Your task to perform on an android device: see tabs open on other devices in the chrome app Image 0: 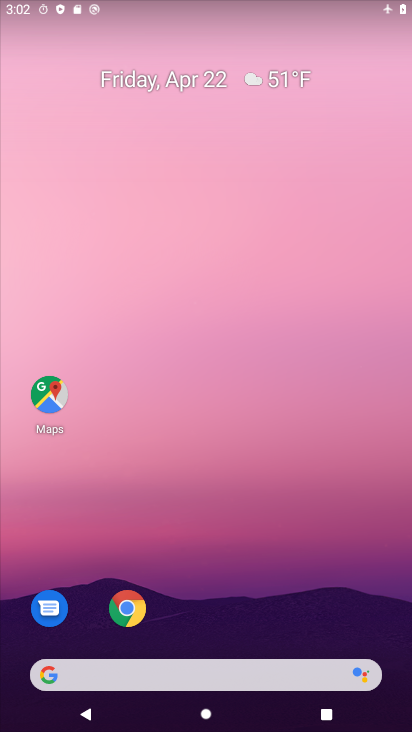
Step 0: drag from (284, 516) to (272, 44)
Your task to perform on an android device: see tabs open on other devices in the chrome app Image 1: 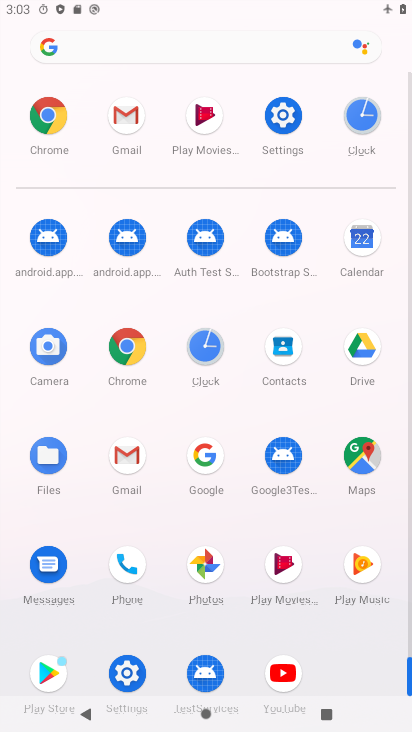
Step 1: click (125, 344)
Your task to perform on an android device: see tabs open on other devices in the chrome app Image 2: 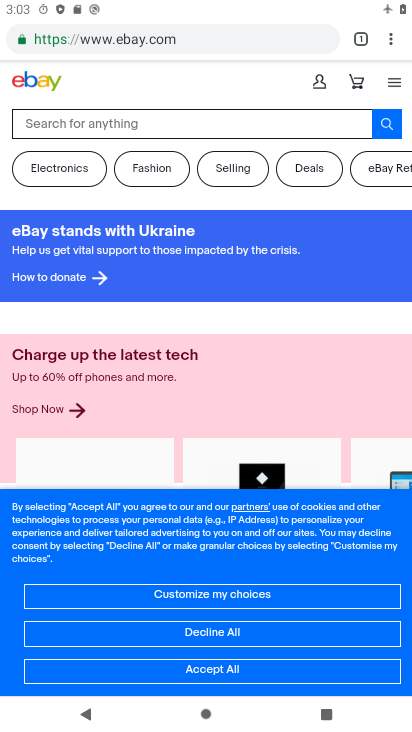
Step 2: click (387, 35)
Your task to perform on an android device: see tabs open on other devices in the chrome app Image 3: 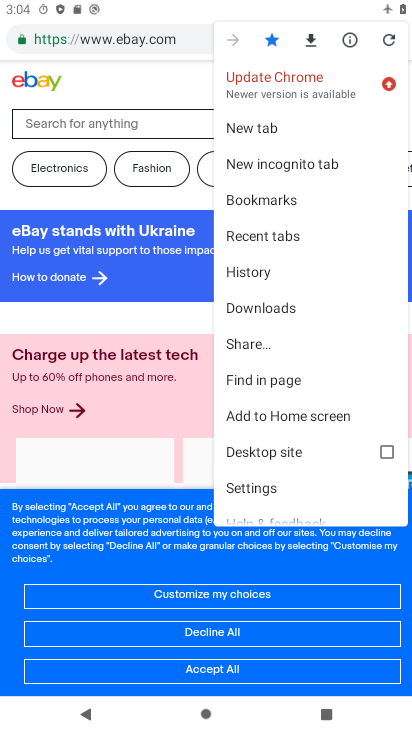
Step 3: click (250, 235)
Your task to perform on an android device: see tabs open on other devices in the chrome app Image 4: 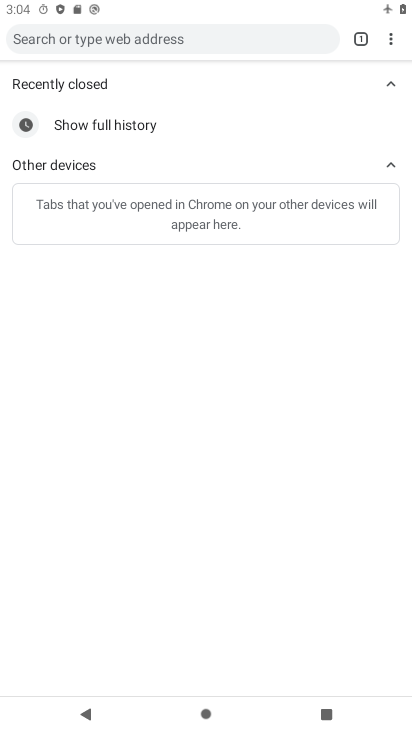
Step 4: task complete